Your task to perform on an android device: Open internet settings Image 0: 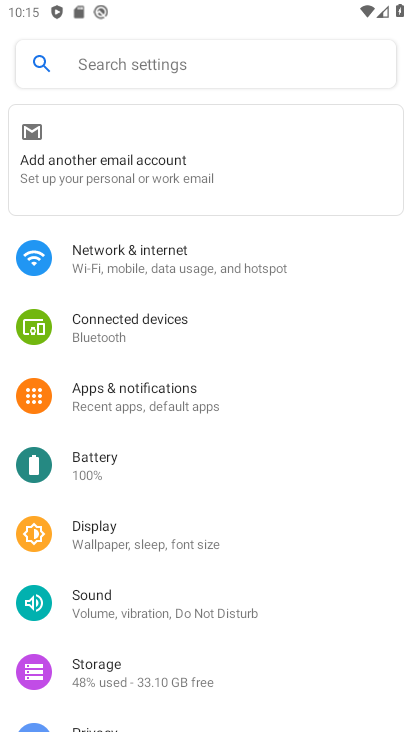
Step 0: press home button
Your task to perform on an android device: Open internet settings Image 1: 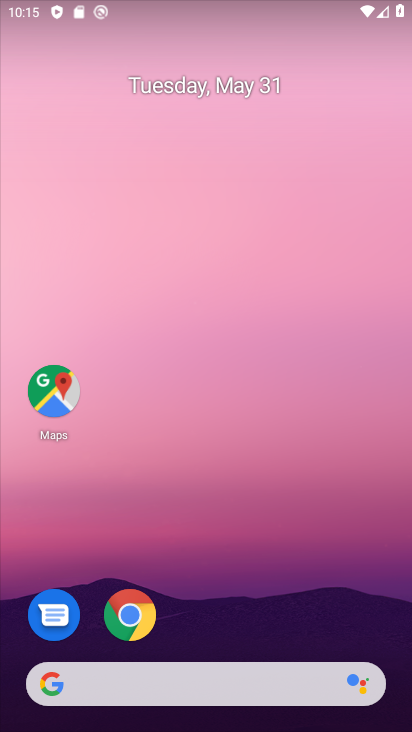
Step 1: drag from (360, 607) to (357, 166)
Your task to perform on an android device: Open internet settings Image 2: 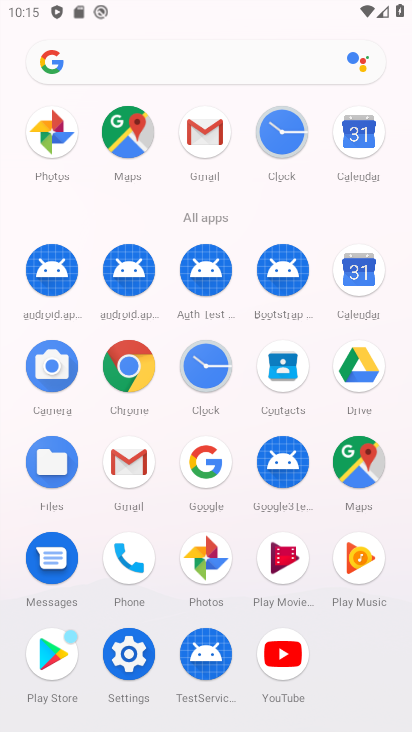
Step 2: click (143, 677)
Your task to perform on an android device: Open internet settings Image 3: 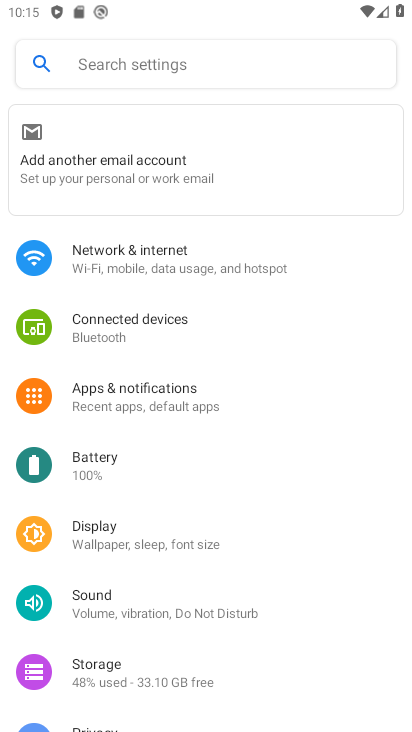
Step 3: drag from (324, 647) to (341, 335)
Your task to perform on an android device: Open internet settings Image 4: 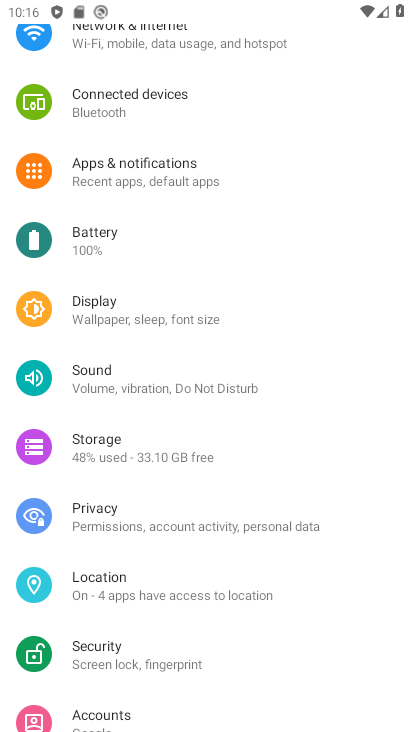
Step 4: drag from (234, 236) to (263, 594)
Your task to perform on an android device: Open internet settings Image 5: 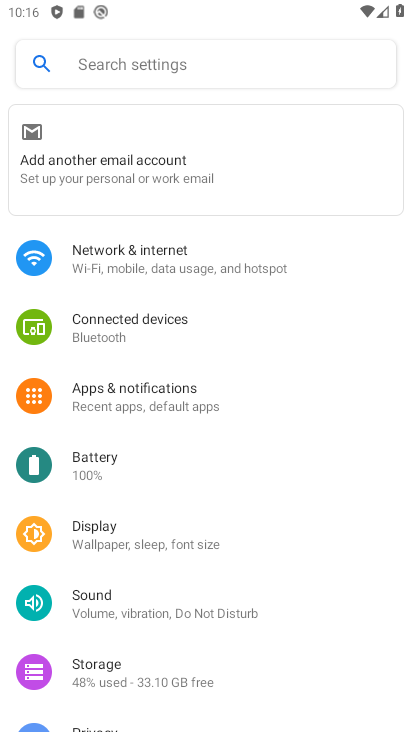
Step 5: click (174, 283)
Your task to perform on an android device: Open internet settings Image 6: 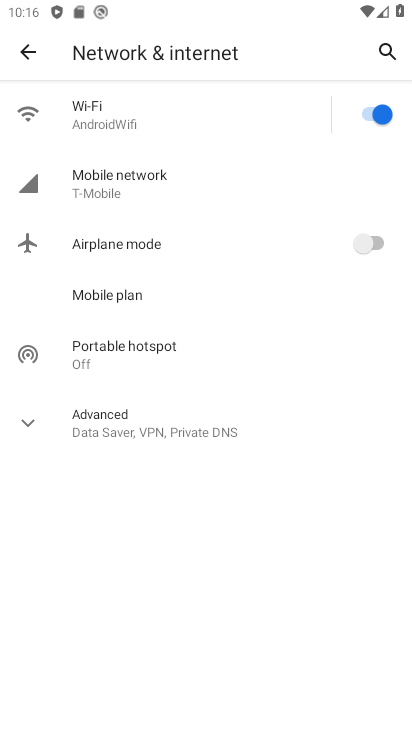
Step 6: task complete